Your task to perform on an android device: check out phone information Image 0: 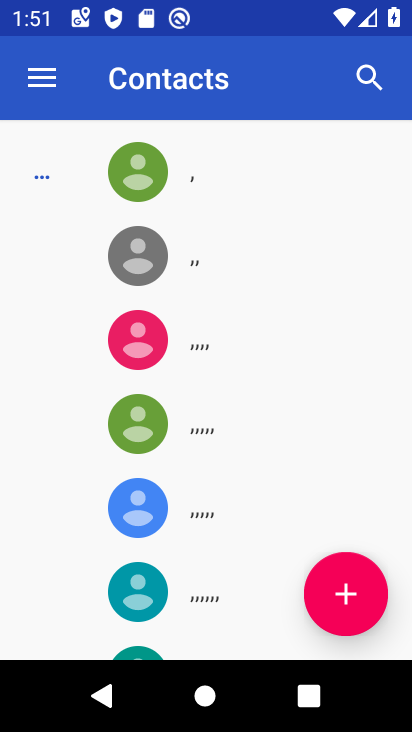
Step 0: press home button
Your task to perform on an android device: check out phone information Image 1: 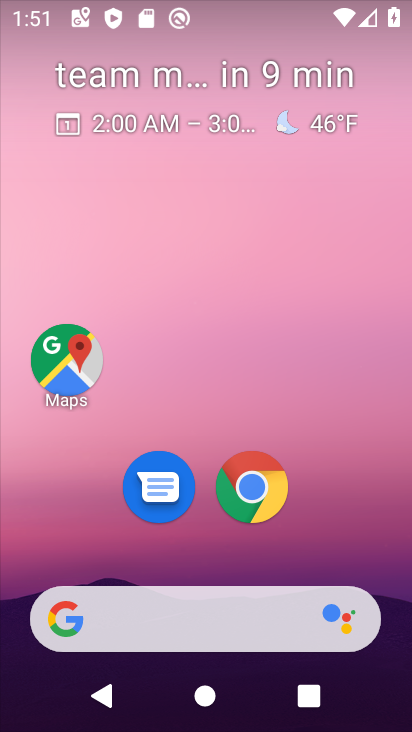
Step 1: drag from (331, 522) to (337, 146)
Your task to perform on an android device: check out phone information Image 2: 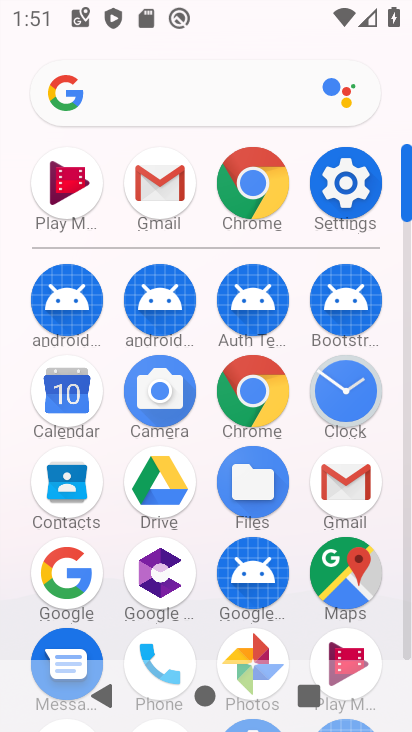
Step 2: click (158, 650)
Your task to perform on an android device: check out phone information Image 3: 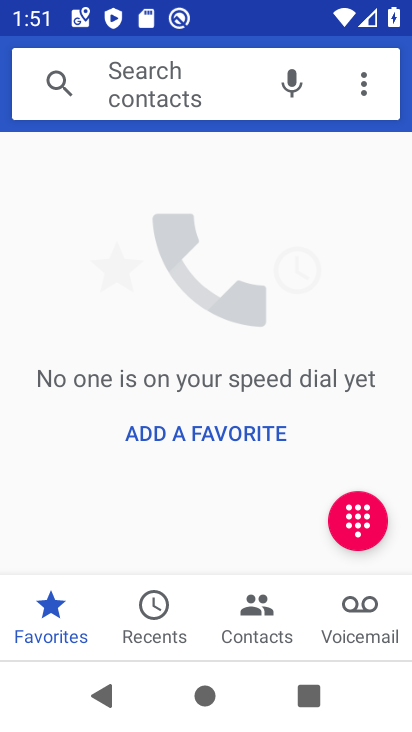
Step 3: click (210, 671)
Your task to perform on an android device: check out phone information Image 4: 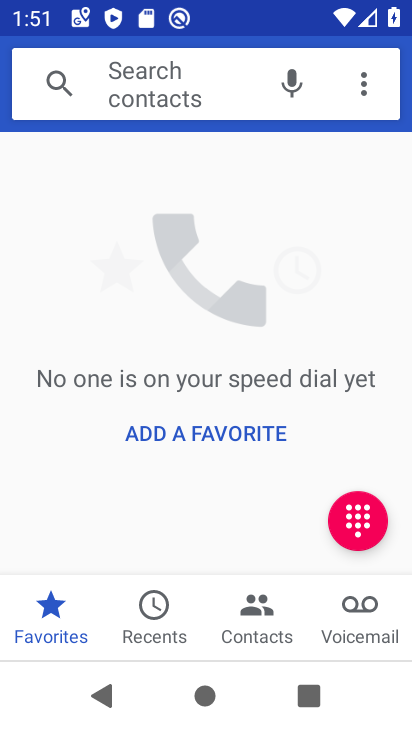
Step 4: click (194, 693)
Your task to perform on an android device: check out phone information Image 5: 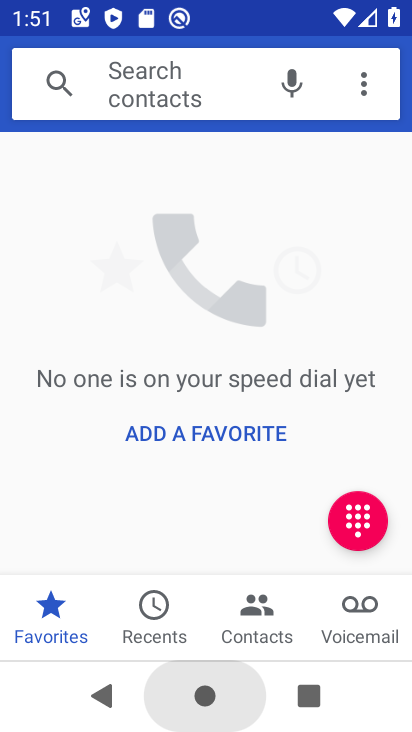
Step 5: click (194, 693)
Your task to perform on an android device: check out phone information Image 6: 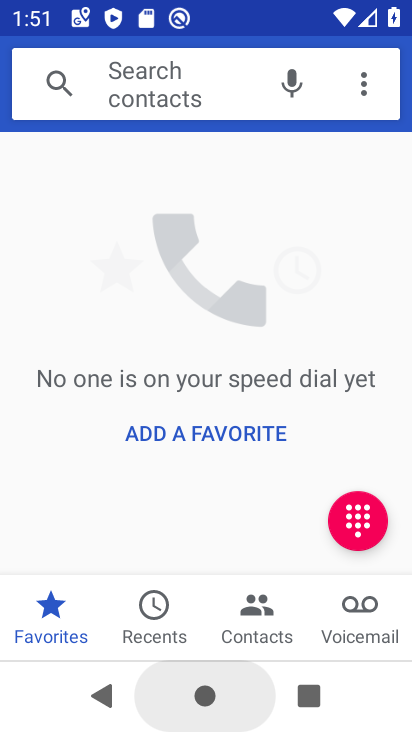
Step 6: click (194, 693)
Your task to perform on an android device: check out phone information Image 7: 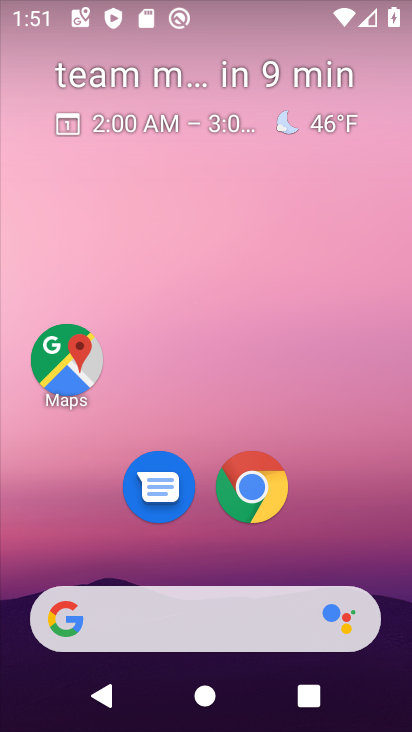
Step 7: drag from (200, 561) to (273, 24)
Your task to perform on an android device: check out phone information Image 8: 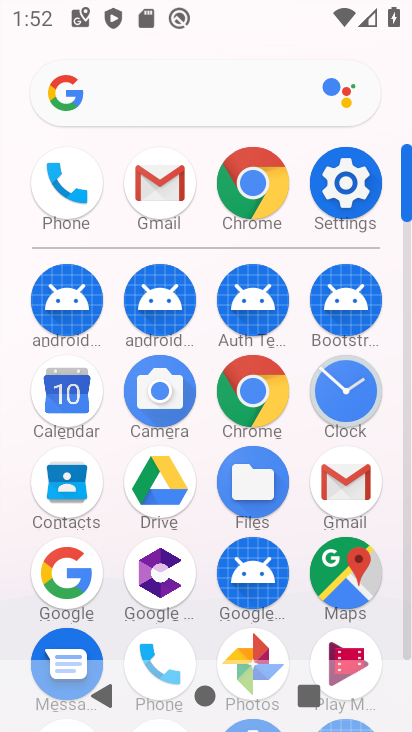
Step 8: click (181, 654)
Your task to perform on an android device: check out phone information Image 9: 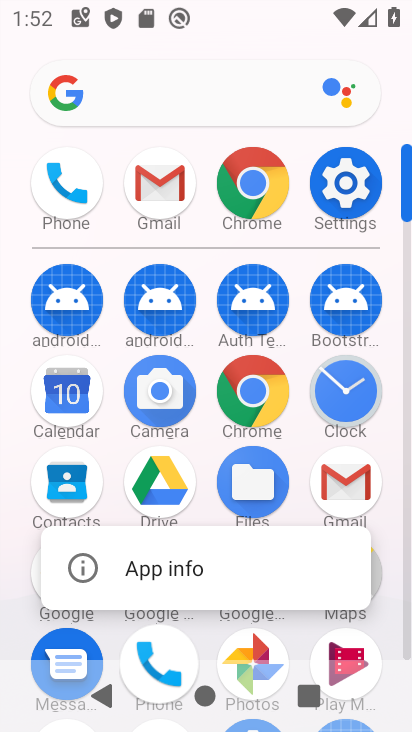
Step 9: click (220, 575)
Your task to perform on an android device: check out phone information Image 10: 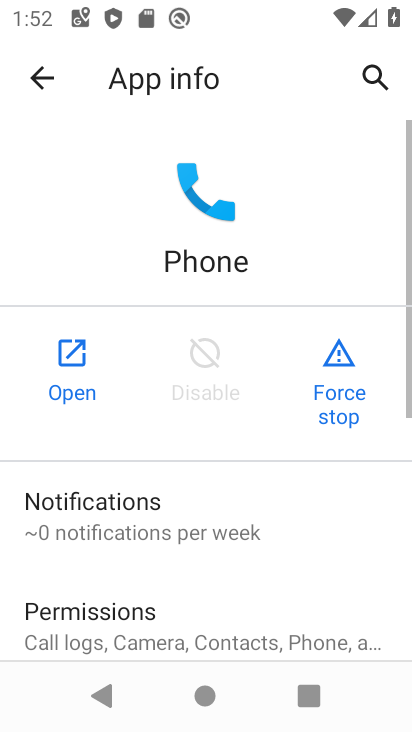
Step 10: task complete